Your task to perform on an android device: see tabs open on other devices in the chrome app Image 0: 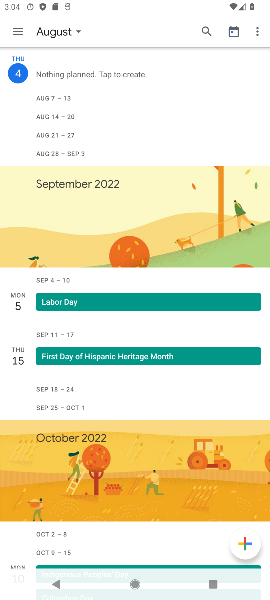
Step 0: press home button
Your task to perform on an android device: see tabs open on other devices in the chrome app Image 1: 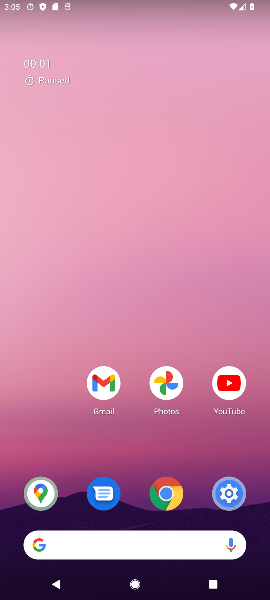
Step 1: click (172, 498)
Your task to perform on an android device: see tabs open on other devices in the chrome app Image 2: 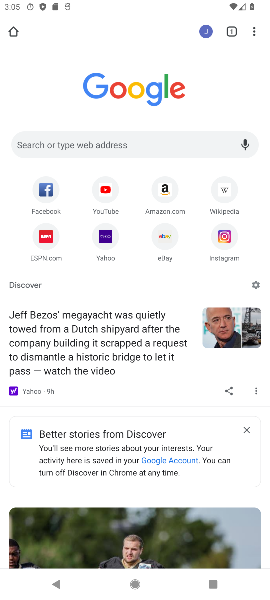
Step 2: click (255, 24)
Your task to perform on an android device: see tabs open on other devices in the chrome app Image 3: 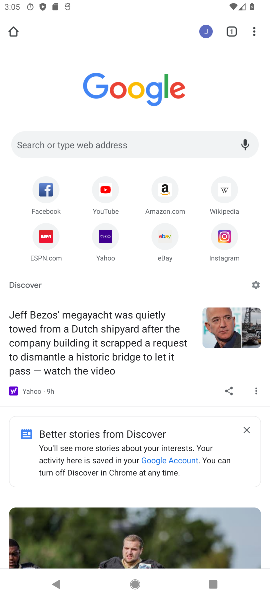
Step 3: task complete